Your task to perform on an android device: create a new album in the google photos Image 0: 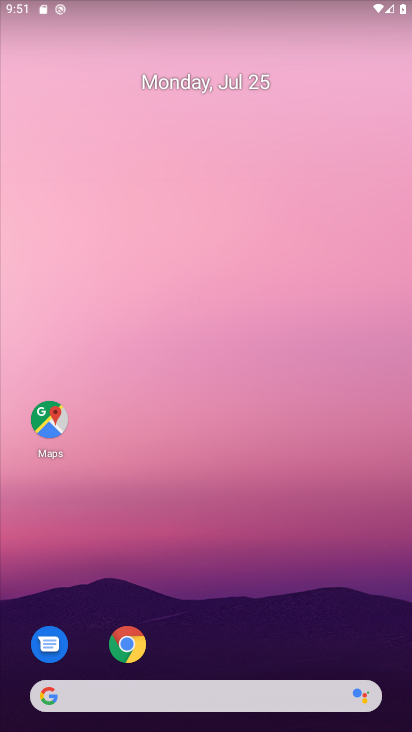
Step 0: click (143, 651)
Your task to perform on an android device: create a new album in the google photos Image 1: 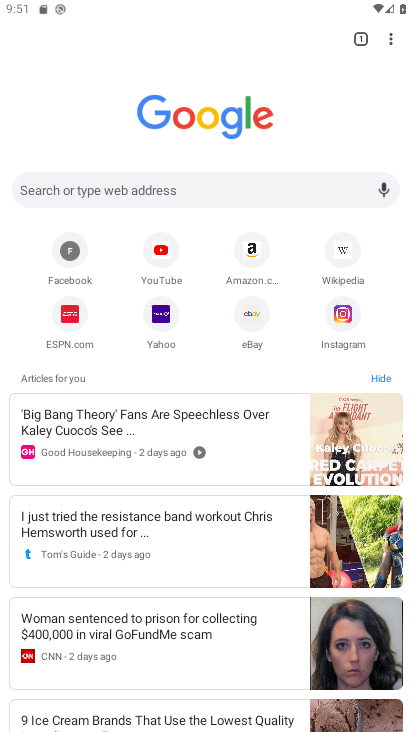
Step 1: press home button
Your task to perform on an android device: create a new album in the google photos Image 2: 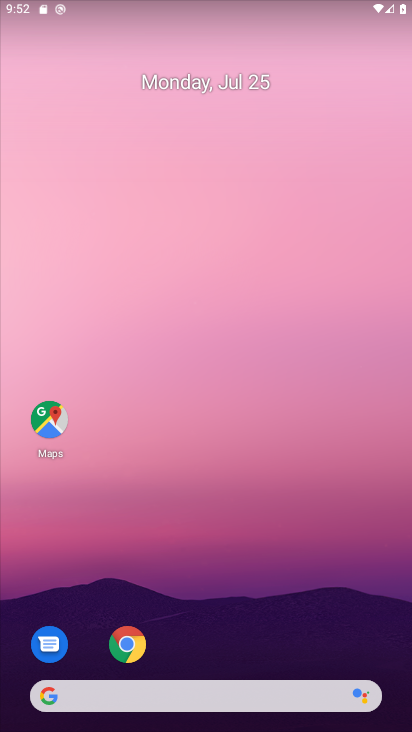
Step 2: drag from (377, 541) to (295, 89)
Your task to perform on an android device: create a new album in the google photos Image 3: 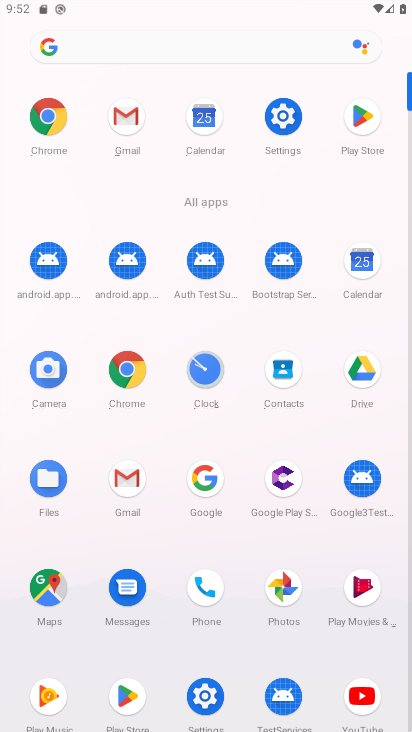
Step 3: click (282, 588)
Your task to perform on an android device: create a new album in the google photos Image 4: 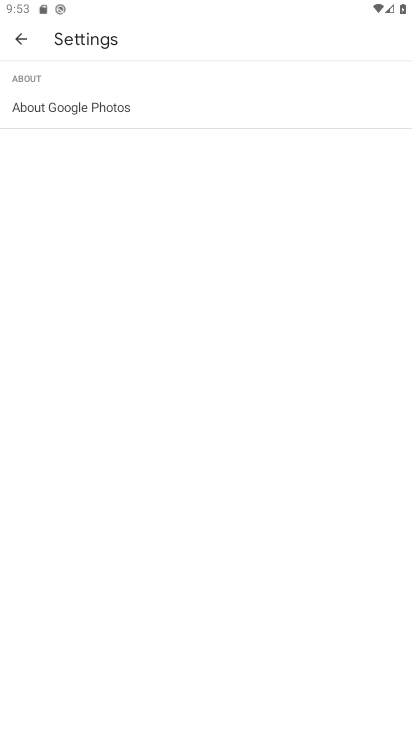
Step 4: press home button
Your task to perform on an android device: create a new album in the google photos Image 5: 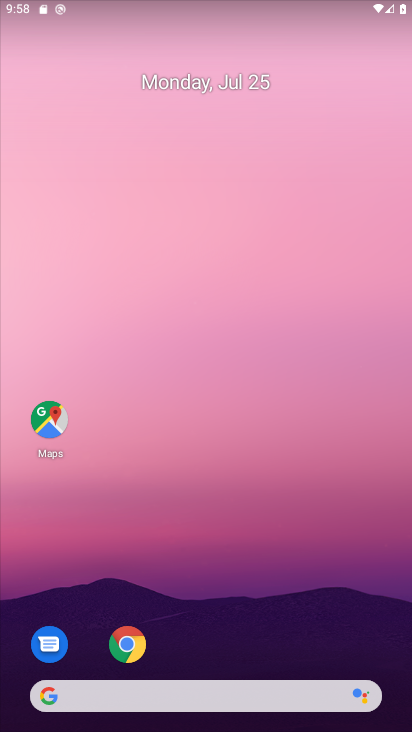
Step 5: drag from (400, 702) to (300, 138)
Your task to perform on an android device: create a new album in the google photos Image 6: 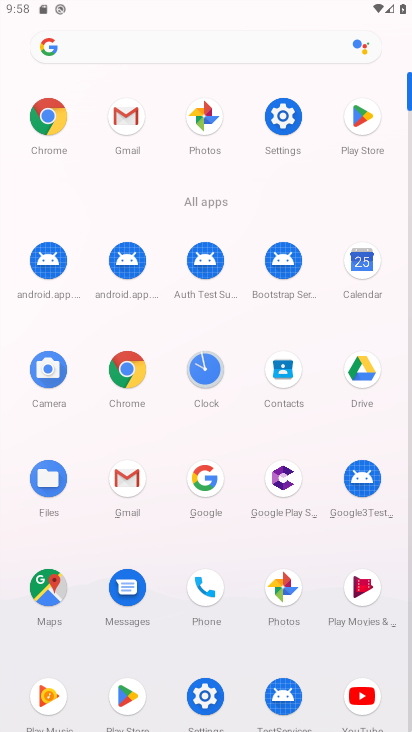
Step 6: click (280, 575)
Your task to perform on an android device: create a new album in the google photos Image 7: 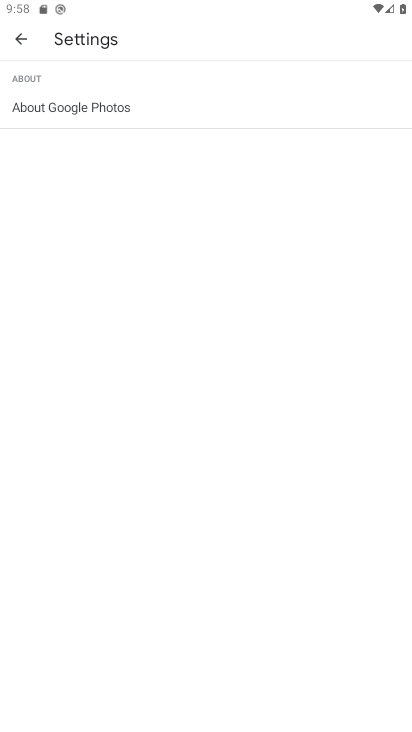
Step 7: task complete